Your task to perform on an android device: delete location history Image 0: 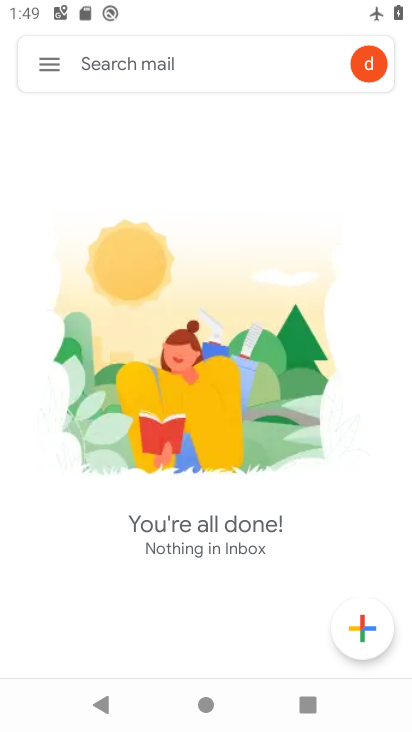
Step 0: press home button
Your task to perform on an android device: delete location history Image 1: 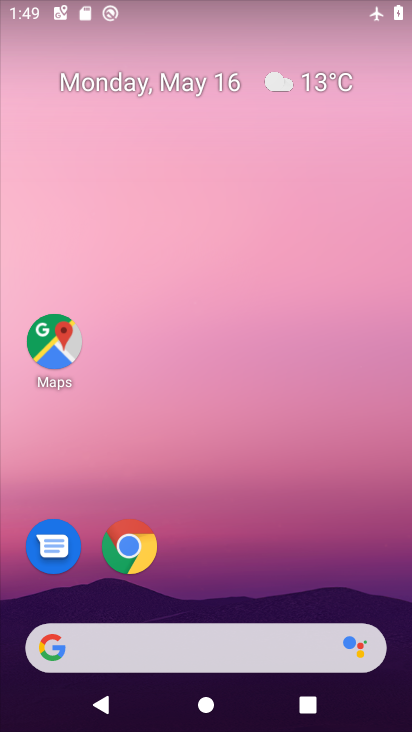
Step 1: drag from (232, 715) to (198, 134)
Your task to perform on an android device: delete location history Image 2: 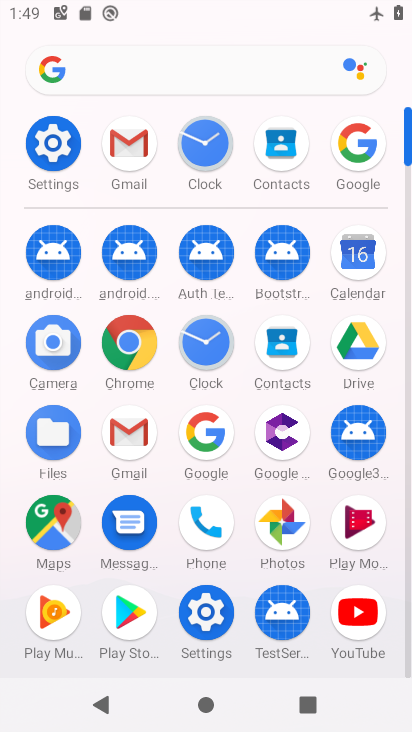
Step 2: click (52, 525)
Your task to perform on an android device: delete location history Image 3: 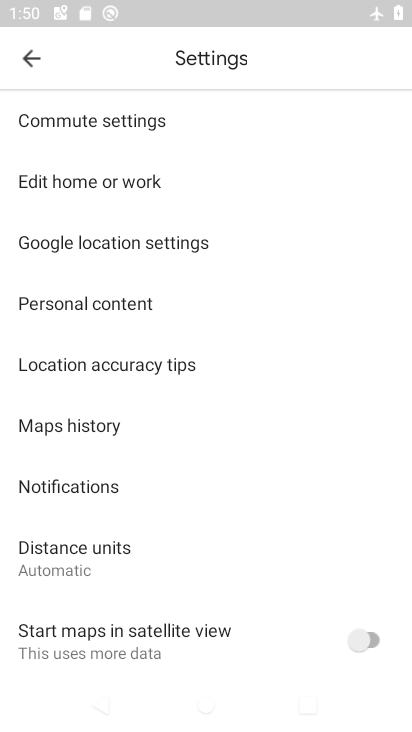
Step 3: drag from (126, 522) to (104, 128)
Your task to perform on an android device: delete location history Image 4: 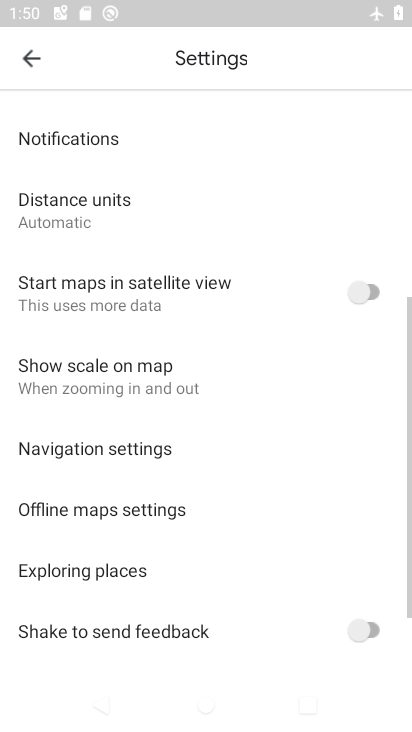
Step 4: drag from (147, 158) to (146, 599)
Your task to perform on an android device: delete location history Image 5: 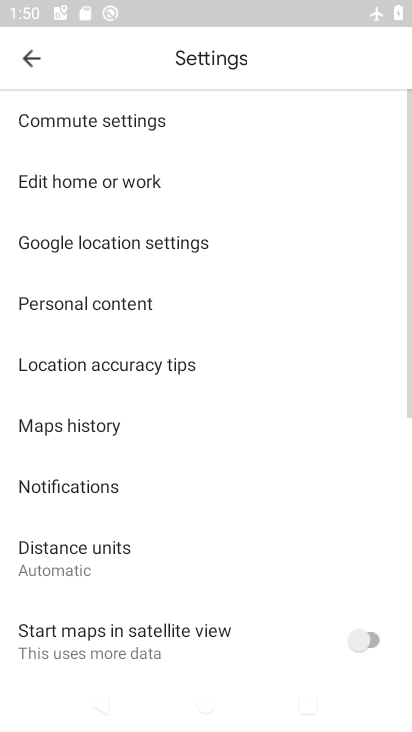
Step 5: drag from (160, 189) to (128, 457)
Your task to perform on an android device: delete location history Image 6: 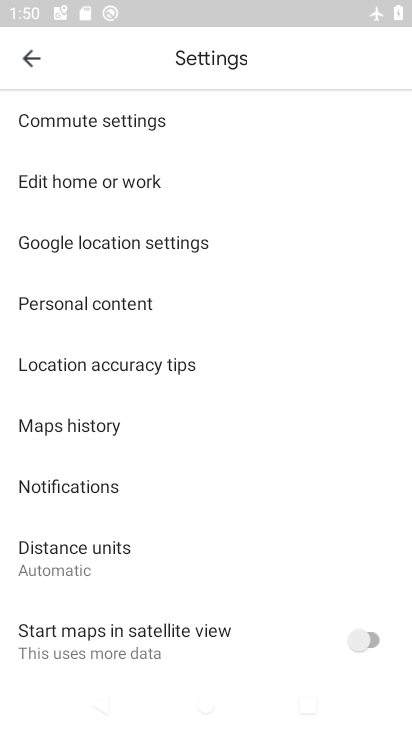
Step 6: click (32, 44)
Your task to perform on an android device: delete location history Image 7: 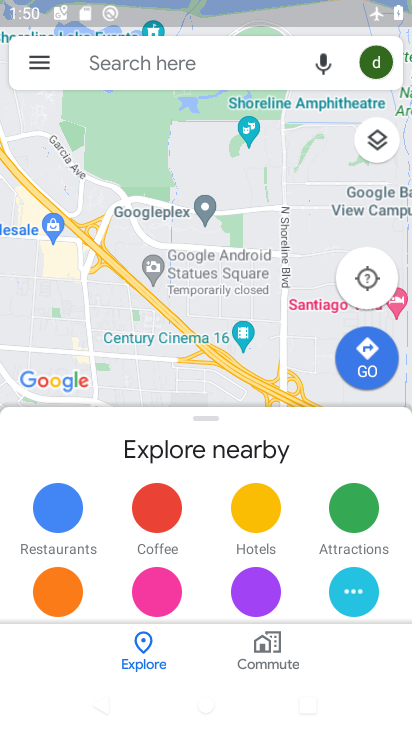
Step 7: click (44, 65)
Your task to perform on an android device: delete location history Image 8: 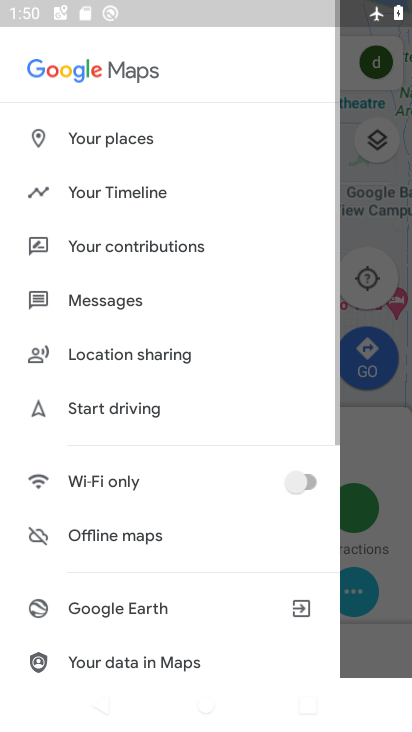
Step 8: drag from (122, 580) to (95, 184)
Your task to perform on an android device: delete location history Image 9: 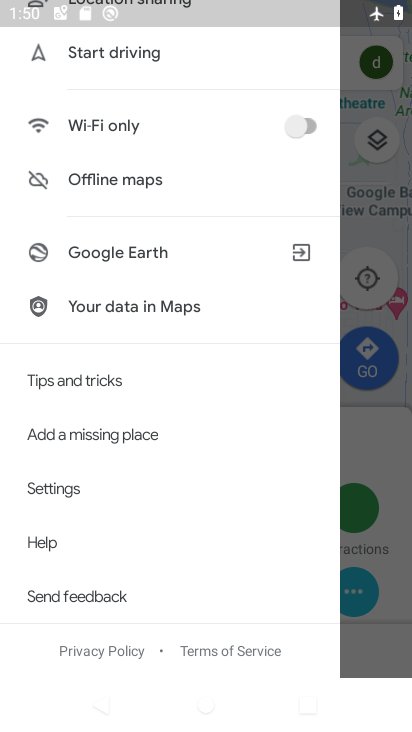
Step 9: drag from (108, 193) to (96, 553)
Your task to perform on an android device: delete location history Image 10: 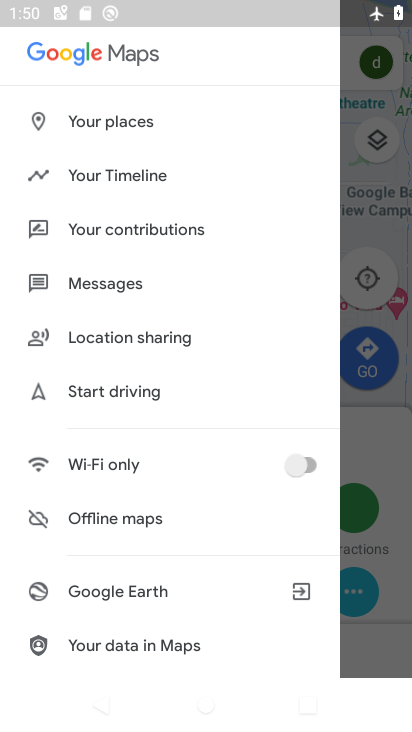
Step 10: click (111, 174)
Your task to perform on an android device: delete location history Image 11: 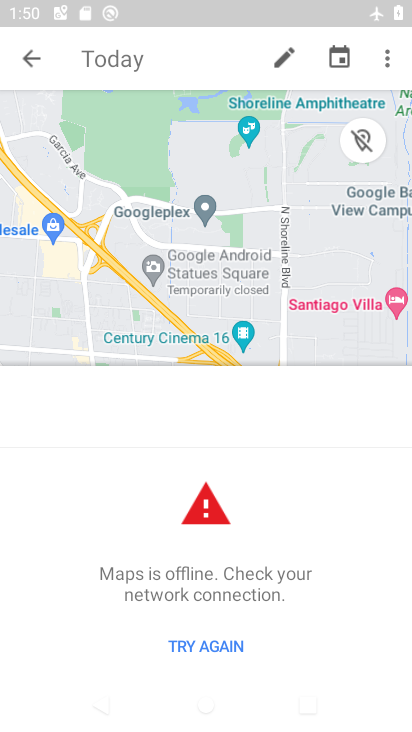
Step 11: click (386, 58)
Your task to perform on an android device: delete location history Image 12: 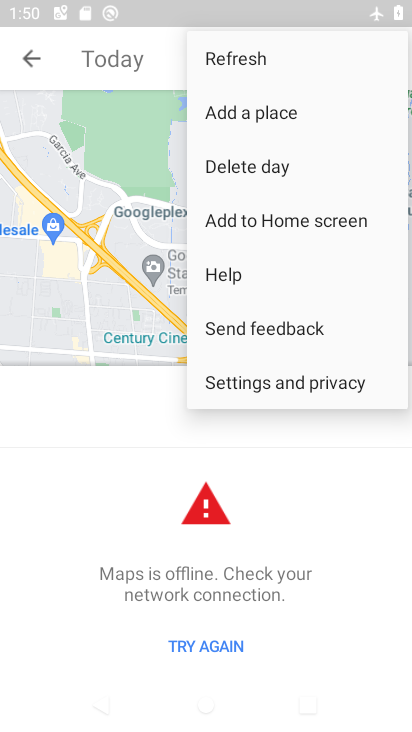
Step 12: click (277, 387)
Your task to perform on an android device: delete location history Image 13: 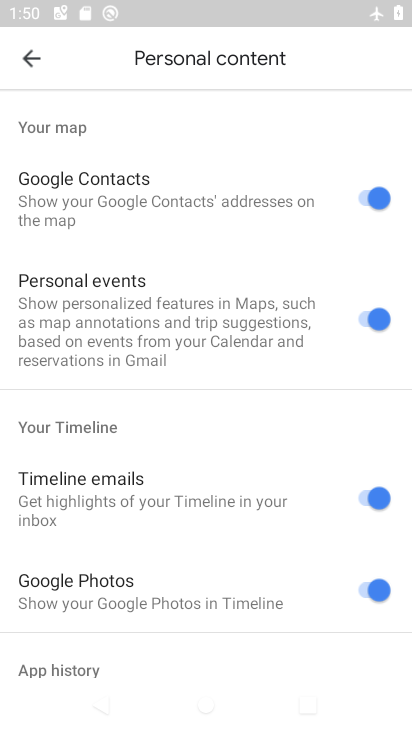
Step 13: drag from (168, 654) to (167, 460)
Your task to perform on an android device: delete location history Image 14: 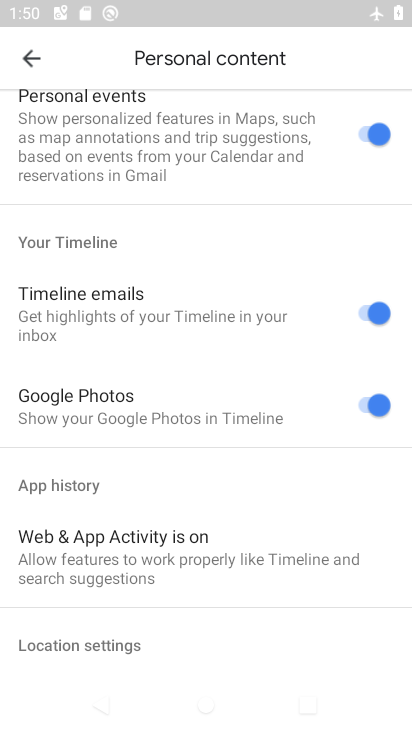
Step 14: drag from (164, 612) to (157, 190)
Your task to perform on an android device: delete location history Image 15: 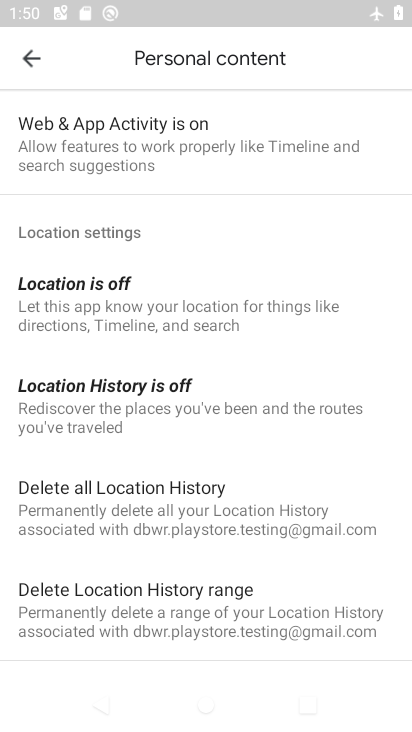
Step 15: click (118, 495)
Your task to perform on an android device: delete location history Image 16: 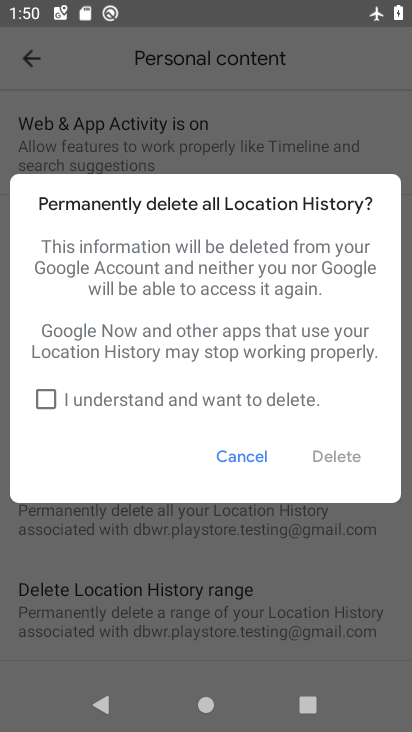
Step 16: click (41, 394)
Your task to perform on an android device: delete location history Image 17: 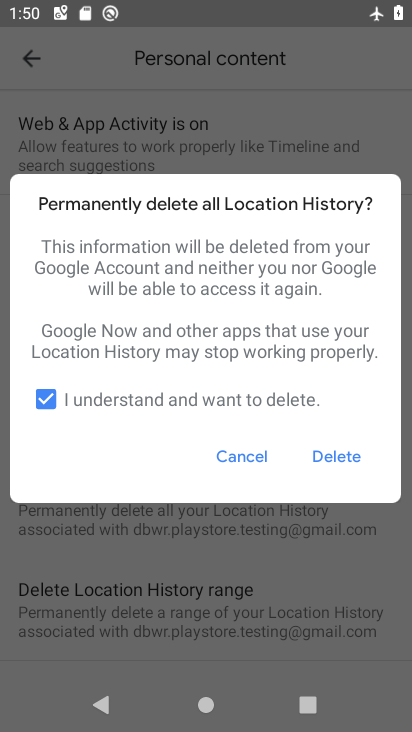
Step 17: click (333, 450)
Your task to perform on an android device: delete location history Image 18: 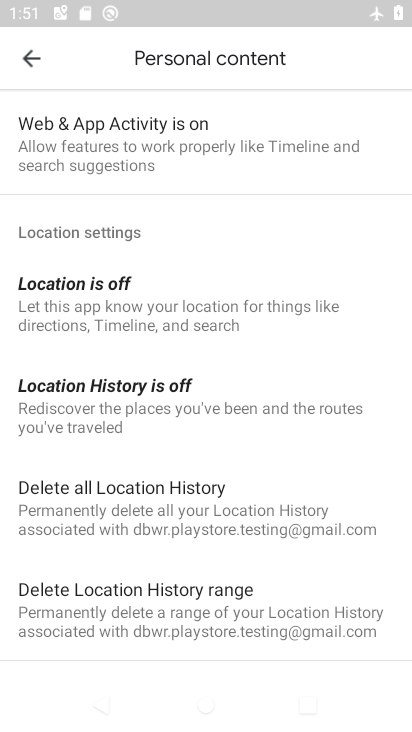
Step 18: task complete